Your task to perform on an android device: Search for usb-a on amazon.com, select the first entry, and add it to the cart. Image 0: 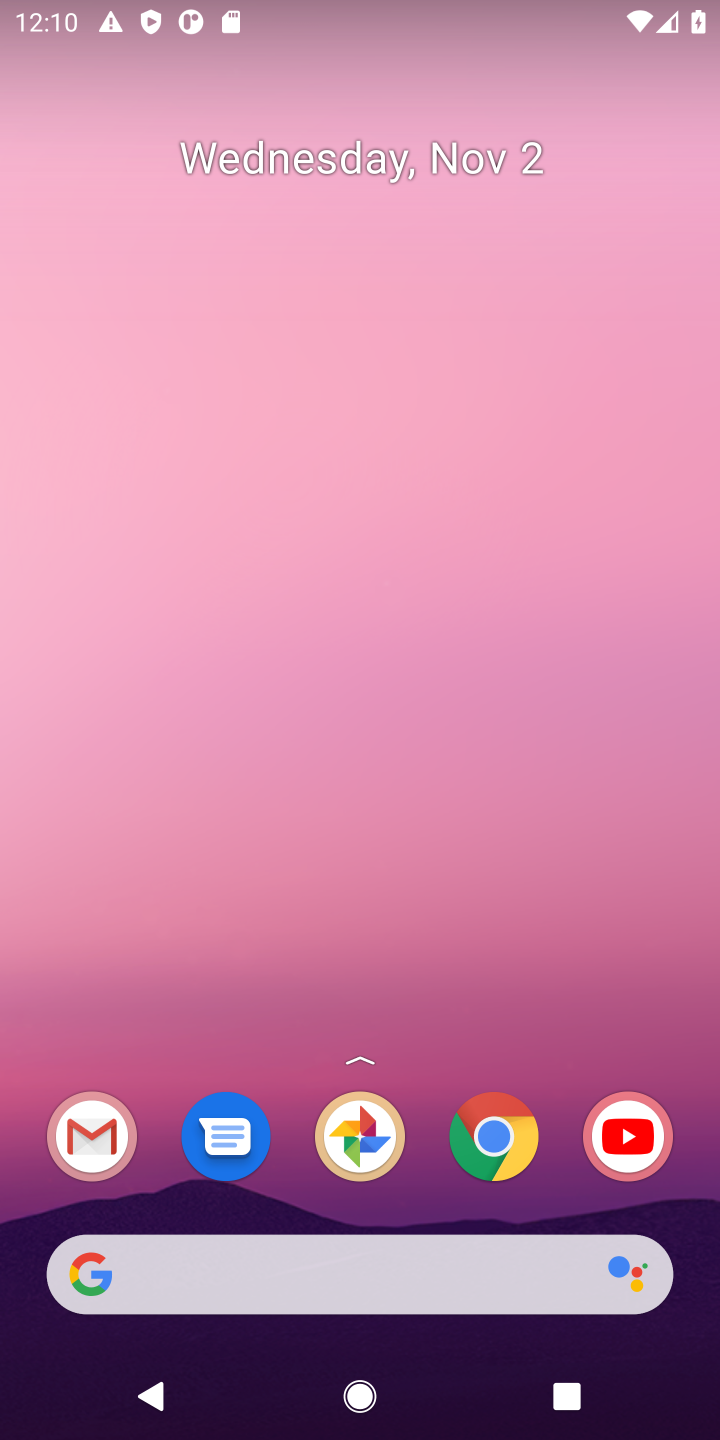
Step 0: click (499, 1134)
Your task to perform on an android device: Search for usb-a on amazon.com, select the first entry, and add it to the cart. Image 1: 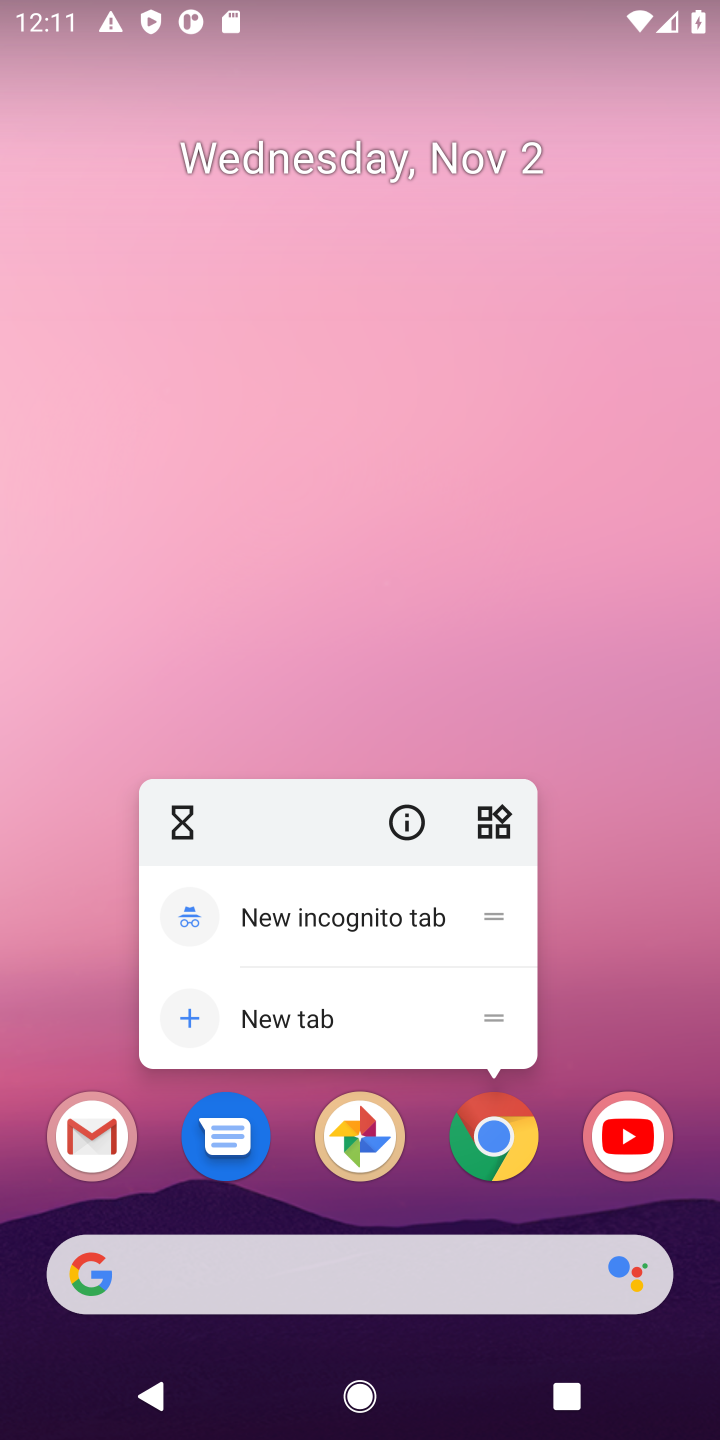
Step 1: click (493, 1134)
Your task to perform on an android device: Search for usb-a on amazon.com, select the first entry, and add it to the cart. Image 2: 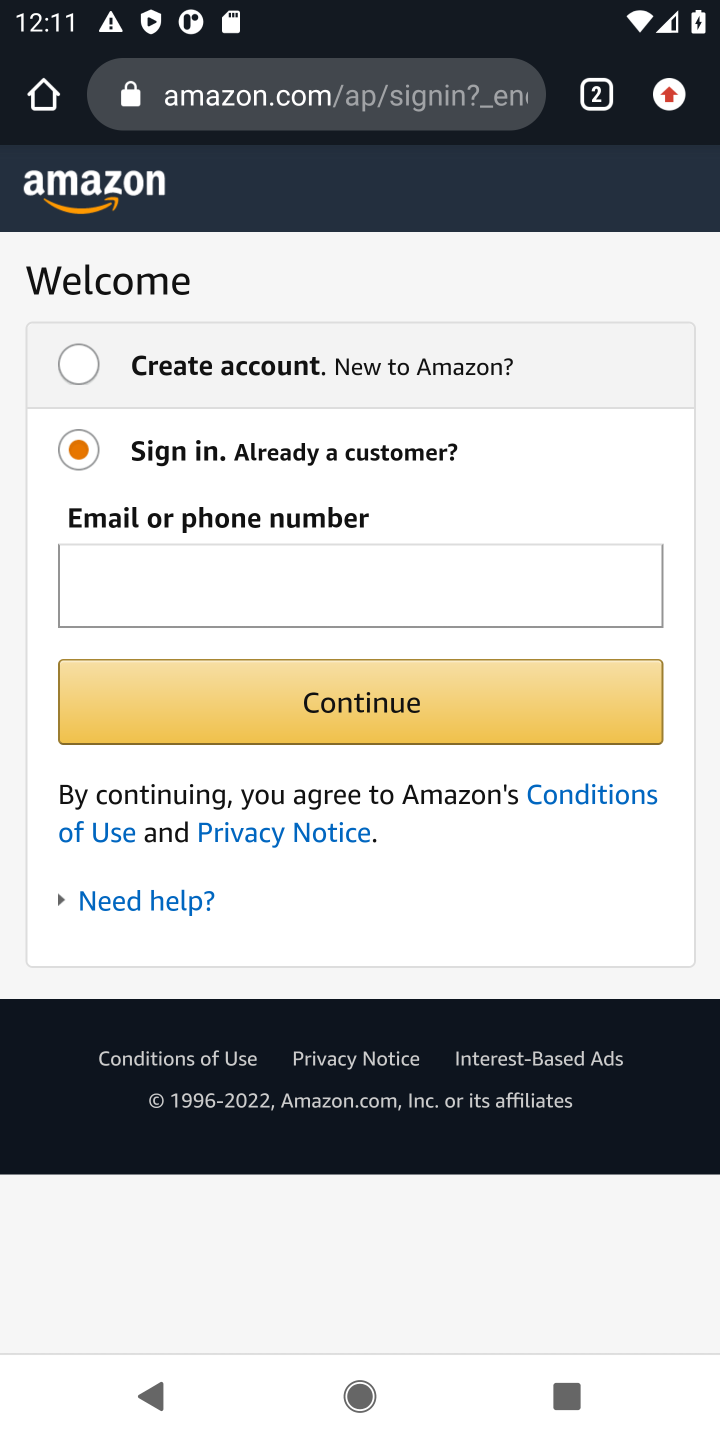
Step 2: click (86, 184)
Your task to perform on an android device: Search for usb-a on amazon.com, select the first entry, and add it to the cart. Image 3: 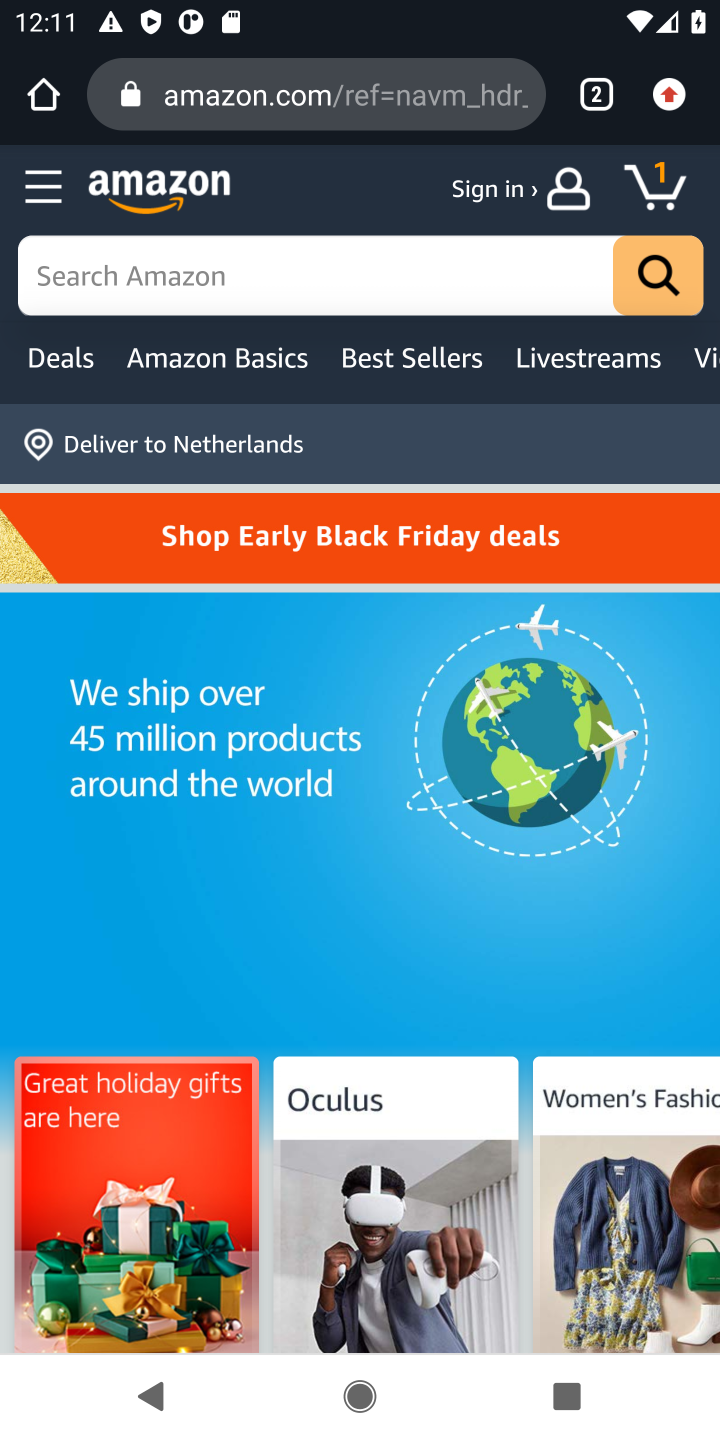
Step 3: click (274, 295)
Your task to perform on an android device: Search for usb-a on amazon.com, select the first entry, and add it to the cart. Image 4: 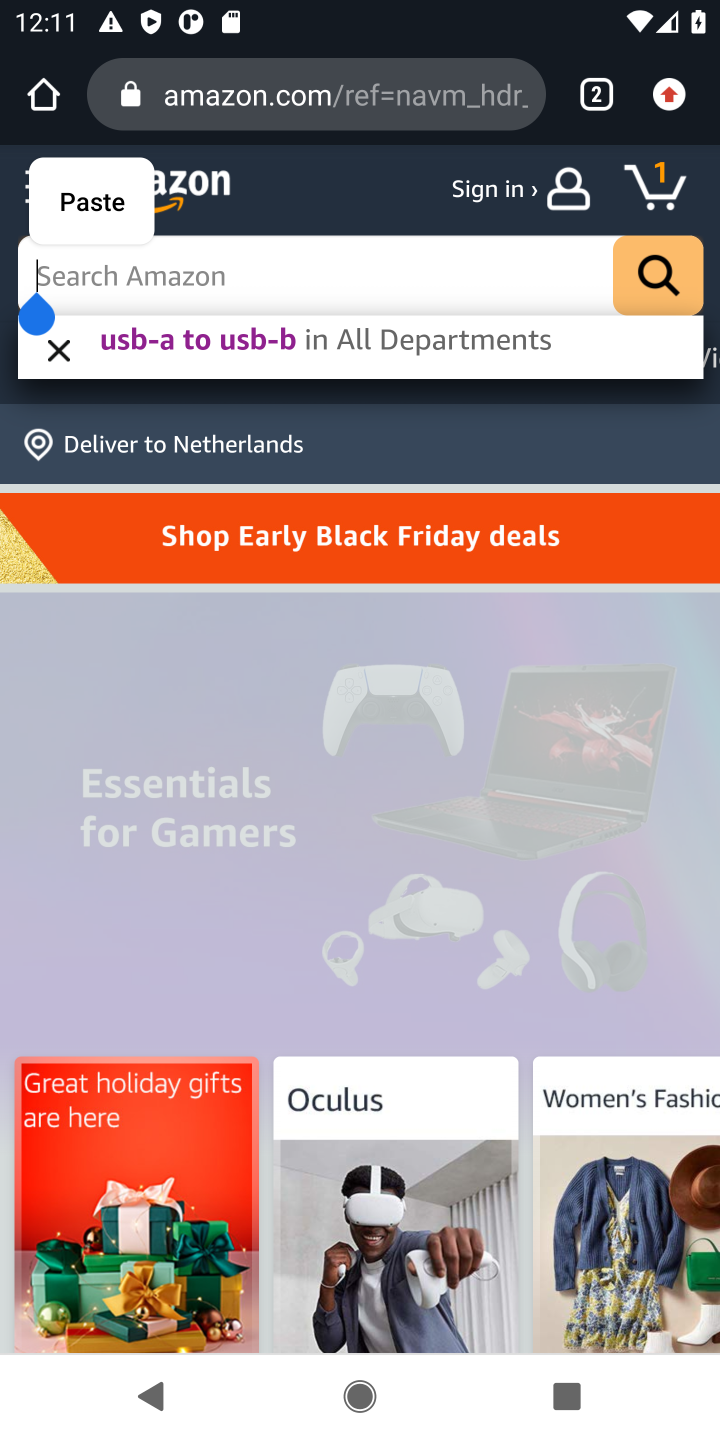
Step 4: type "usb-a"
Your task to perform on an android device: Search for usb-a on amazon.com, select the first entry, and add it to the cart. Image 5: 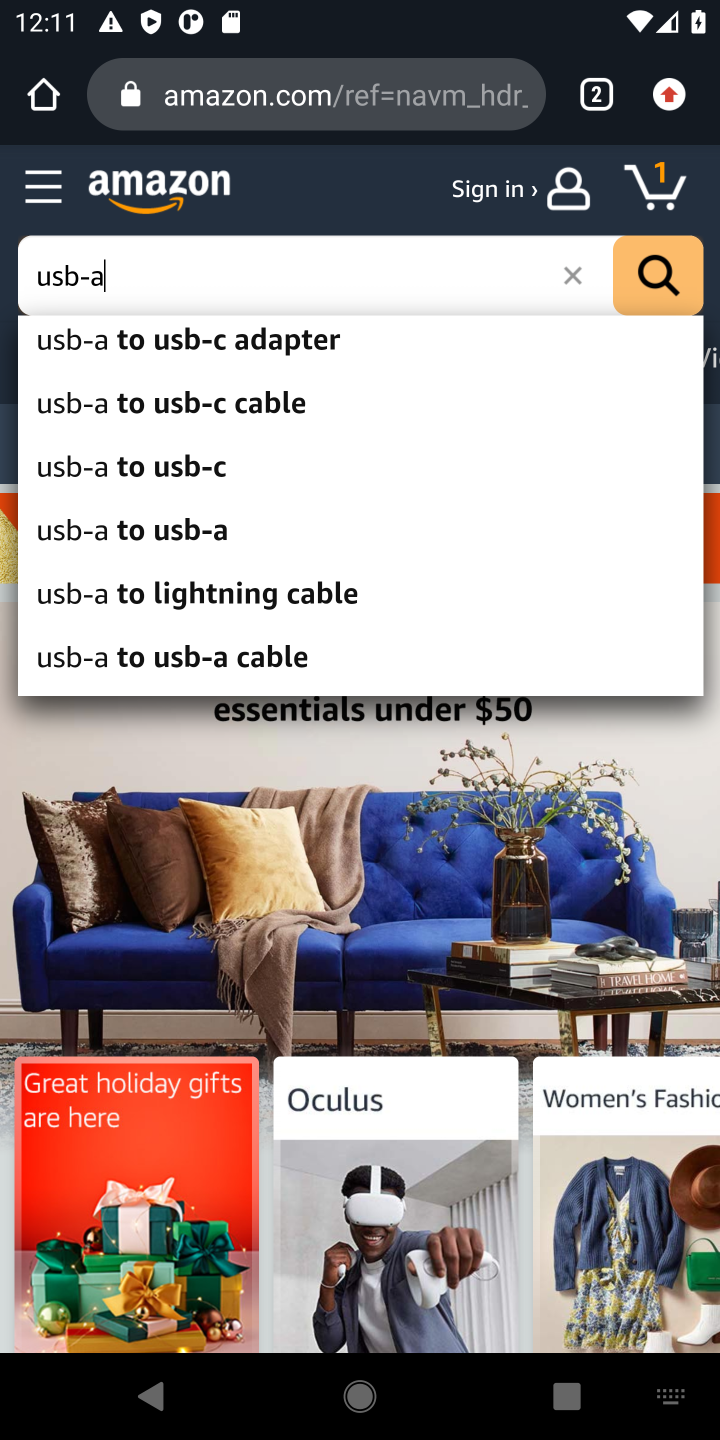
Step 5: click (629, 276)
Your task to perform on an android device: Search for usb-a on amazon.com, select the first entry, and add it to the cart. Image 6: 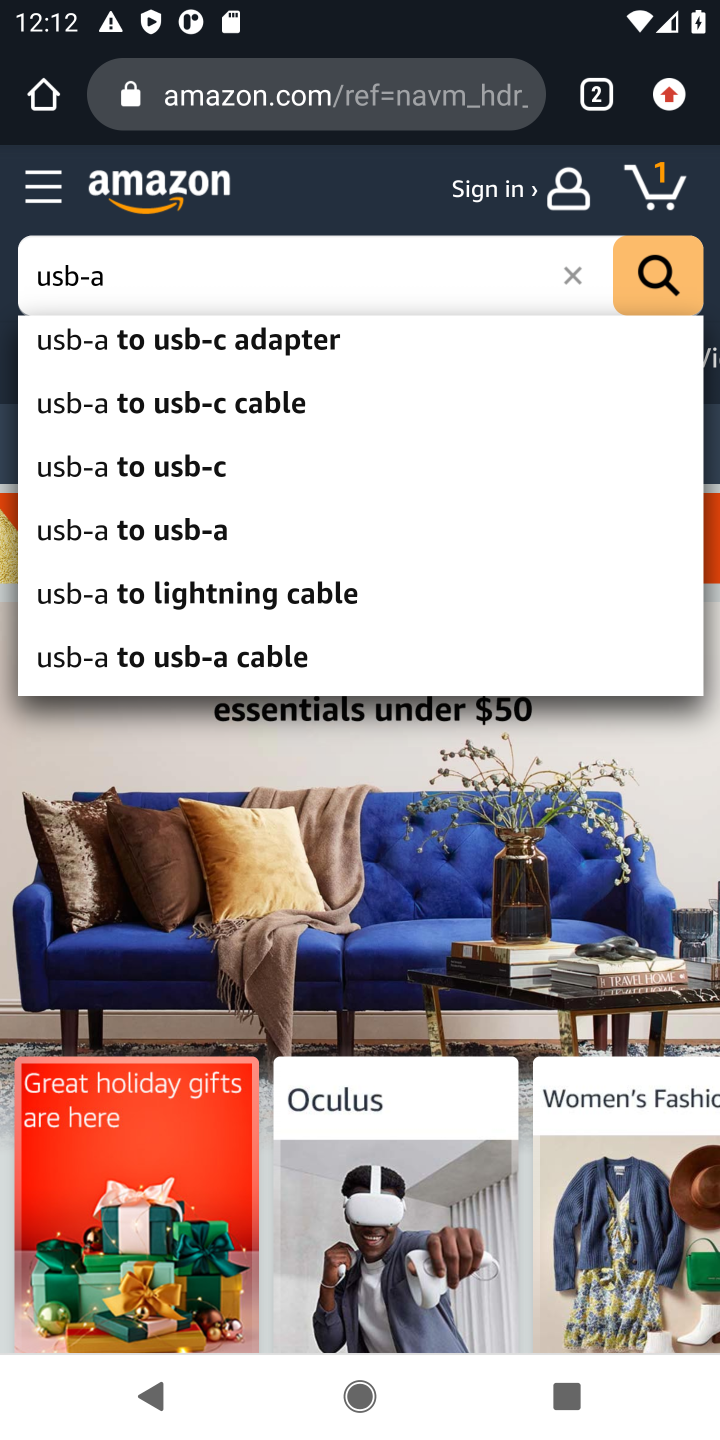
Step 6: click (681, 257)
Your task to perform on an android device: Search for usb-a on amazon.com, select the first entry, and add it to the cart. Image 7: 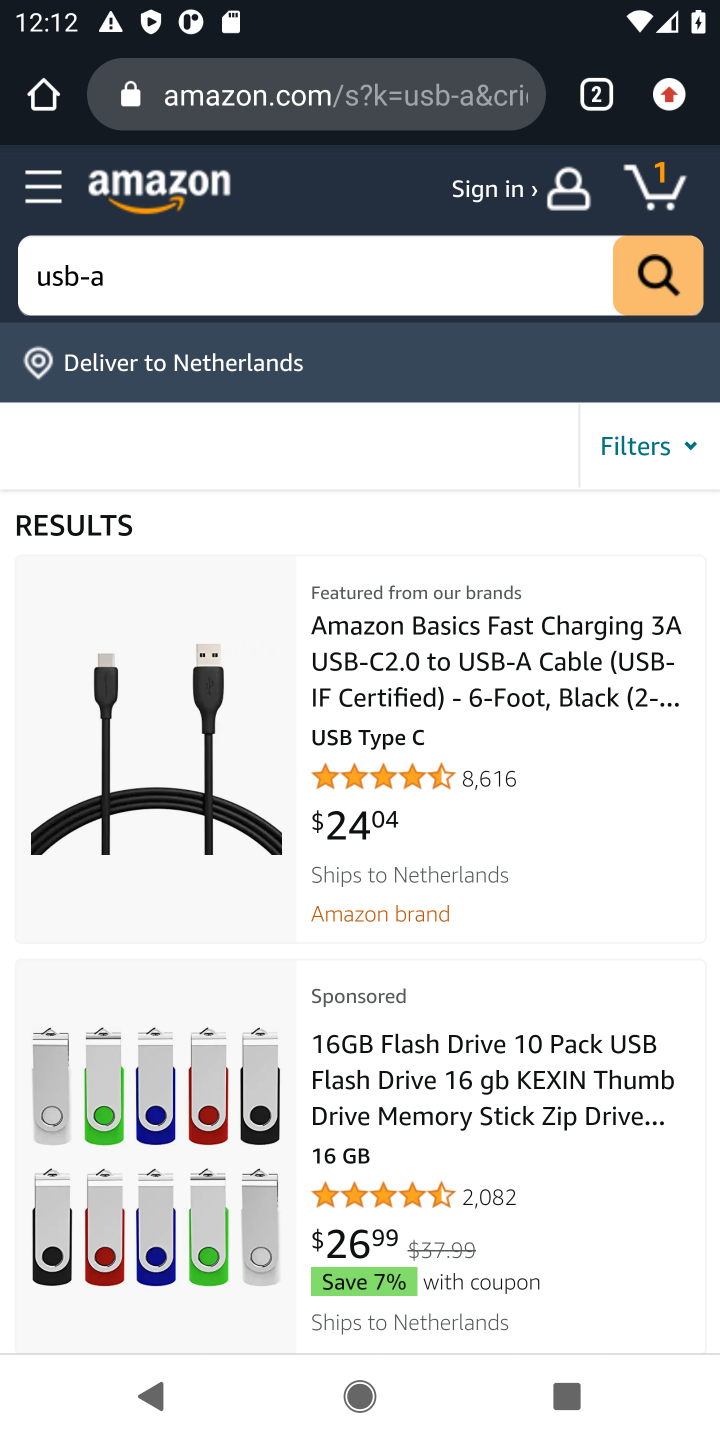
Step 7: click (531, 660)
Your task to perform on an android device: Search for usb-a on amazon.com, select the first entry, and add it to the cart. Image 8: 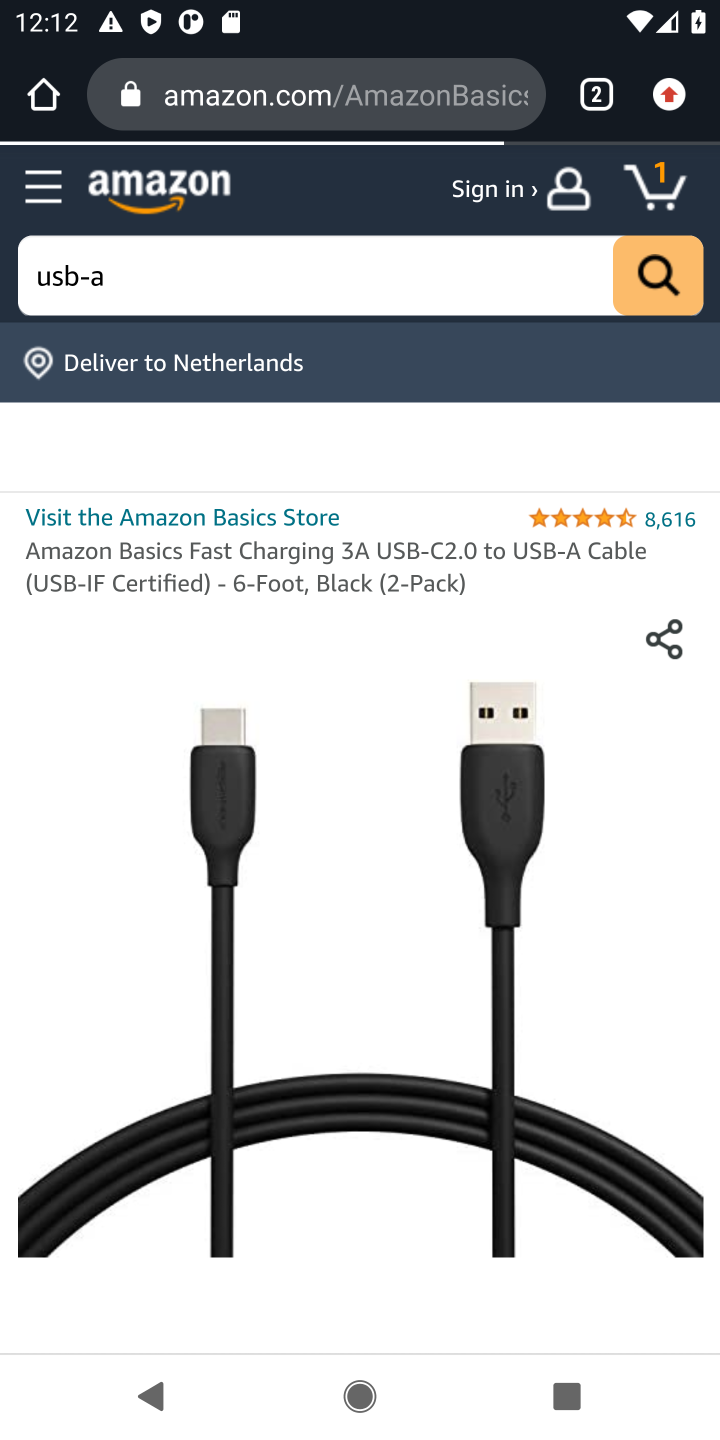
Step 8: drag from (539, 783) to (575, 543)
Your task to perform on an android device: Search for usb-a on amazon.com, select the first entry, and add it to the cart. Image 9: 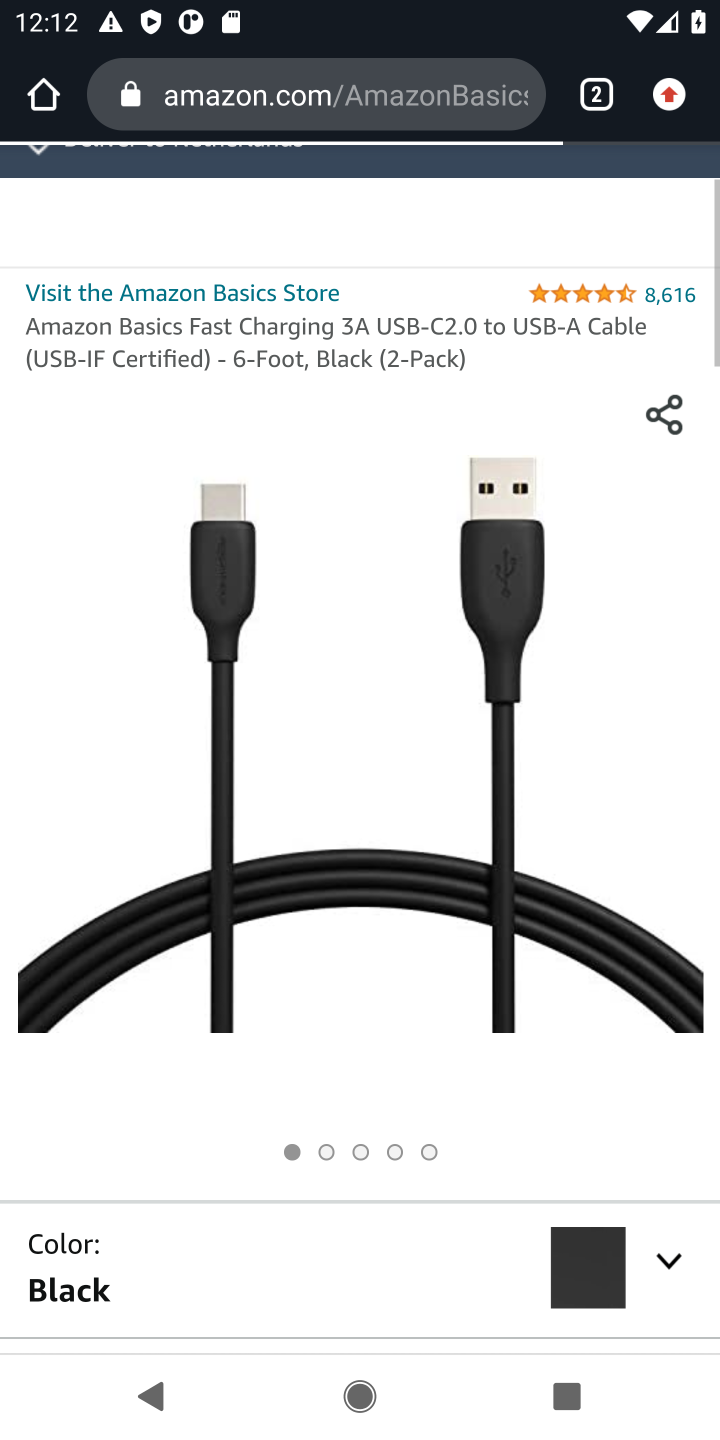
Step 9: drag from (513, 724) to (551, 553)
Your task to perform on an android device: Search for usb-a on amazon.com, select the first entry, and add it to the cart. Image 10: 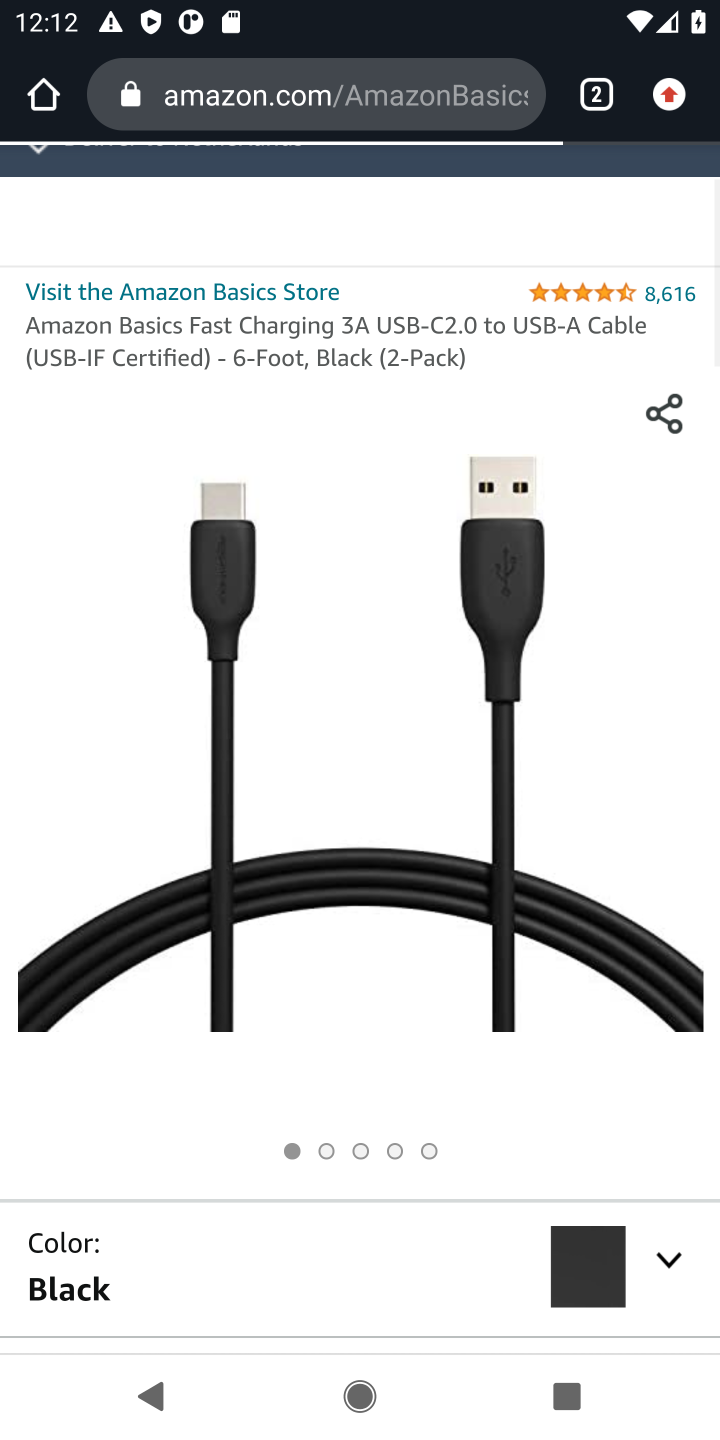
Step 10: drag from (504, 938) to (594, 486)
Your task to perform on an android device: Search for usb-a on amazon.com, select the first entry, and add it to the cart. Image 11: 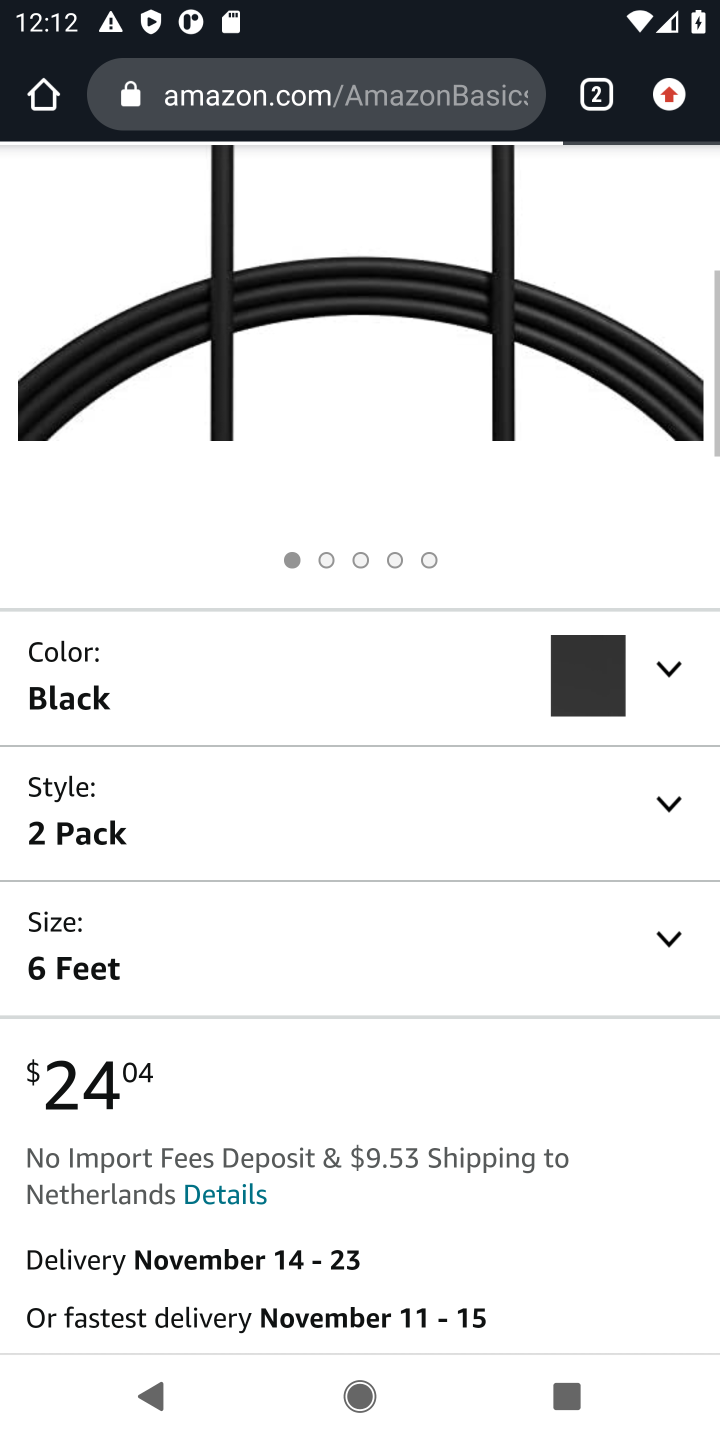
Step 11: drag from (491, 731) to (532, 533)
Your task to perform on an android device: Search for usb-a on amazon.com, select the first entry, and add it to the cart. Image 12: 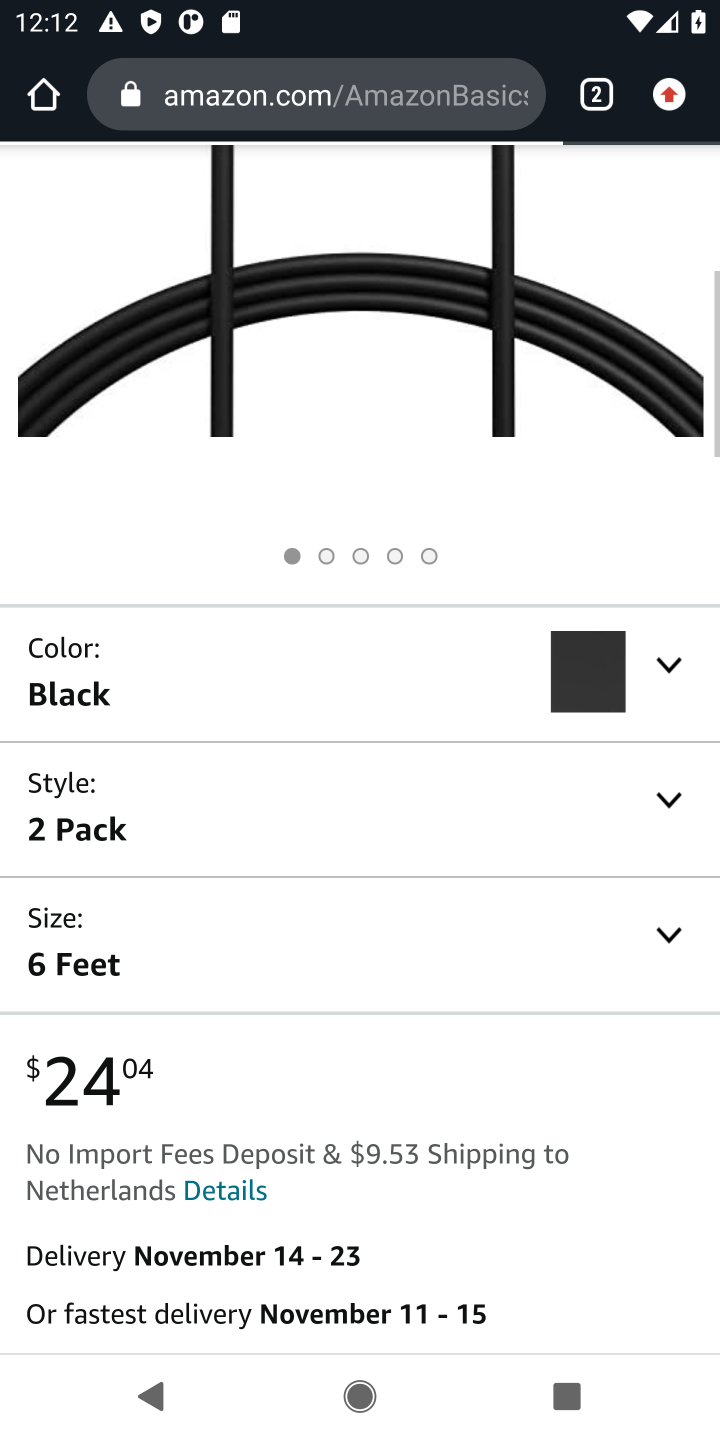
Step 12: drag from (441, 985) to (533, 477)
Your task to perform on an android device: Search for usb-a on amazon.com, select the first entry, and add it to the cart. Image 13: 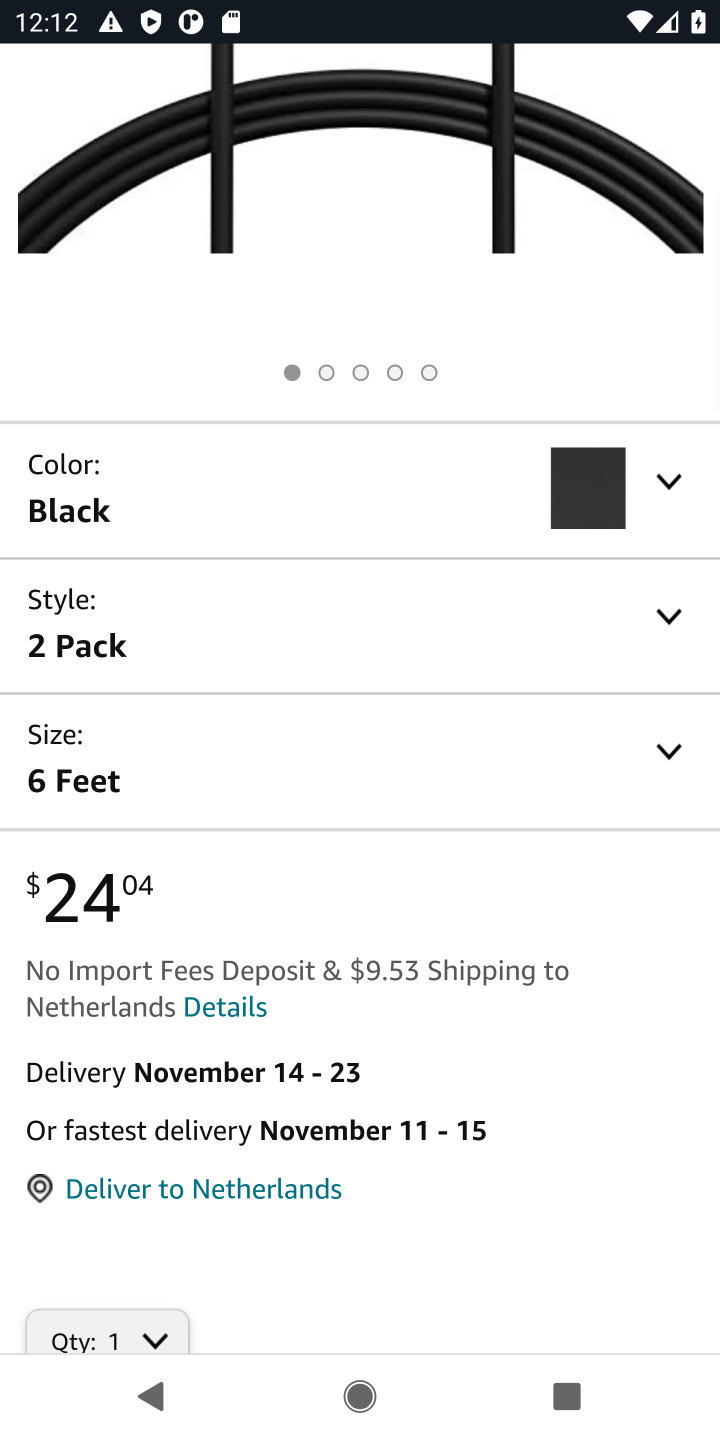
Step 13: drag from (413, 916) to (421, 523)
Your task to perform on an android device: Search for usb-a on amazon.com, select the first entry, and add it to the cart. Image 14: 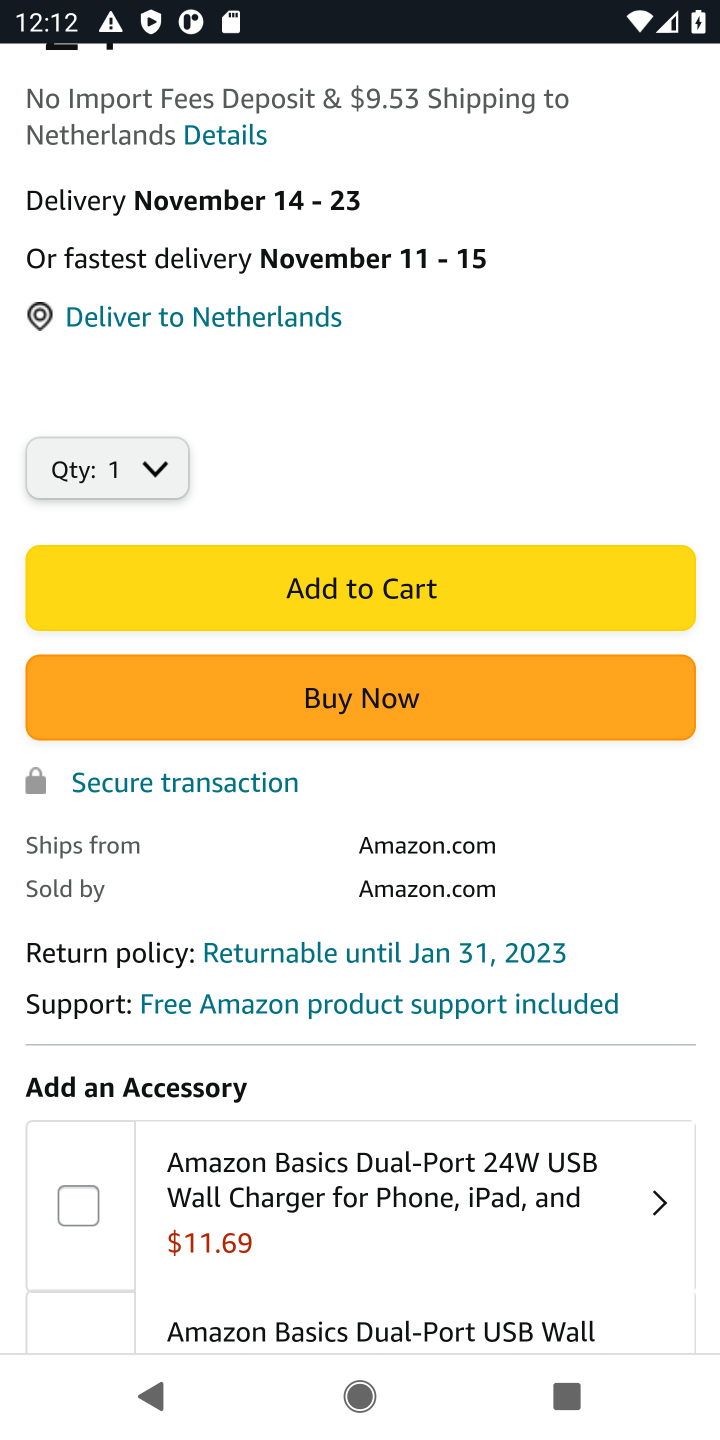
Step 14: click (405, 961)
Your task to perform on an android device: Search for usb-a on amazon.com, select the first entry, and add it to the cart. Image 15: 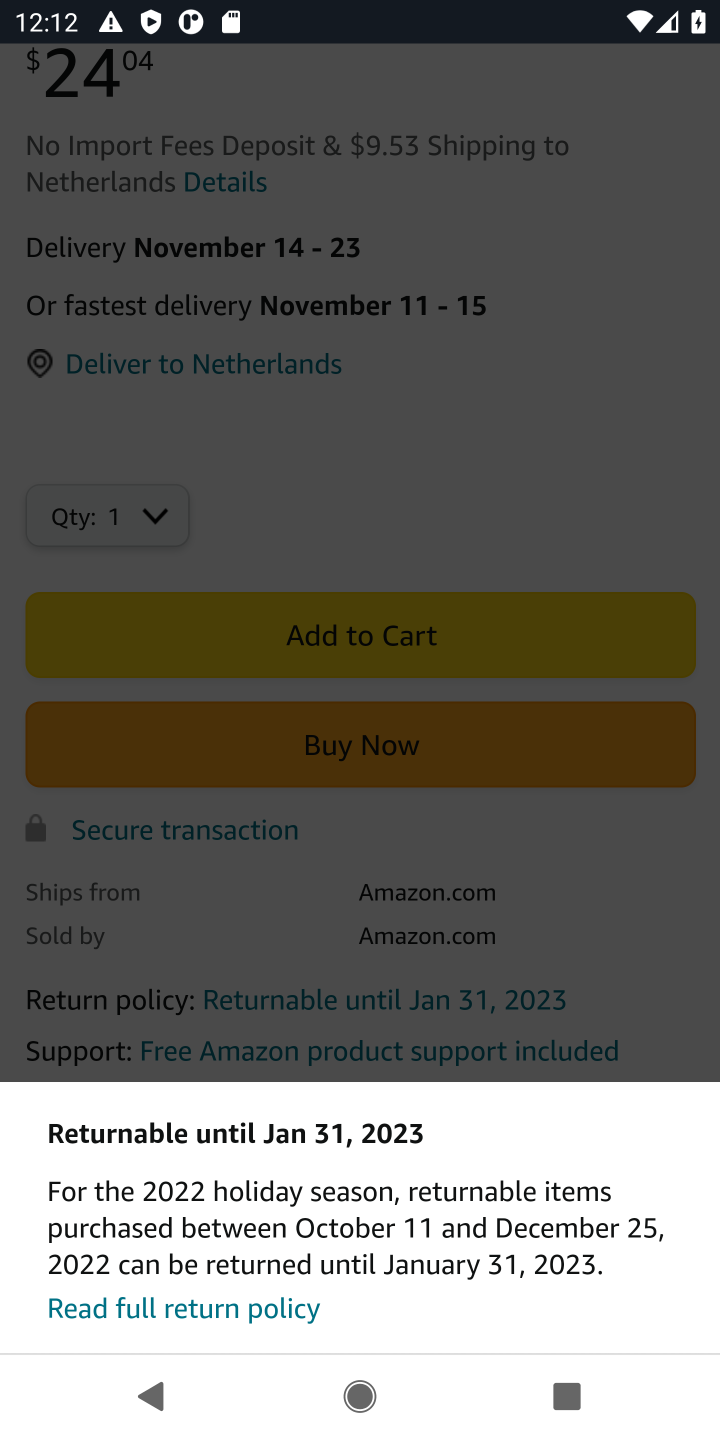
Step 15: click (267, 961)
Your task to perform on an android device: Search for usb-a on amazon.com, select the first entry, and add it to the cart. Image 16: 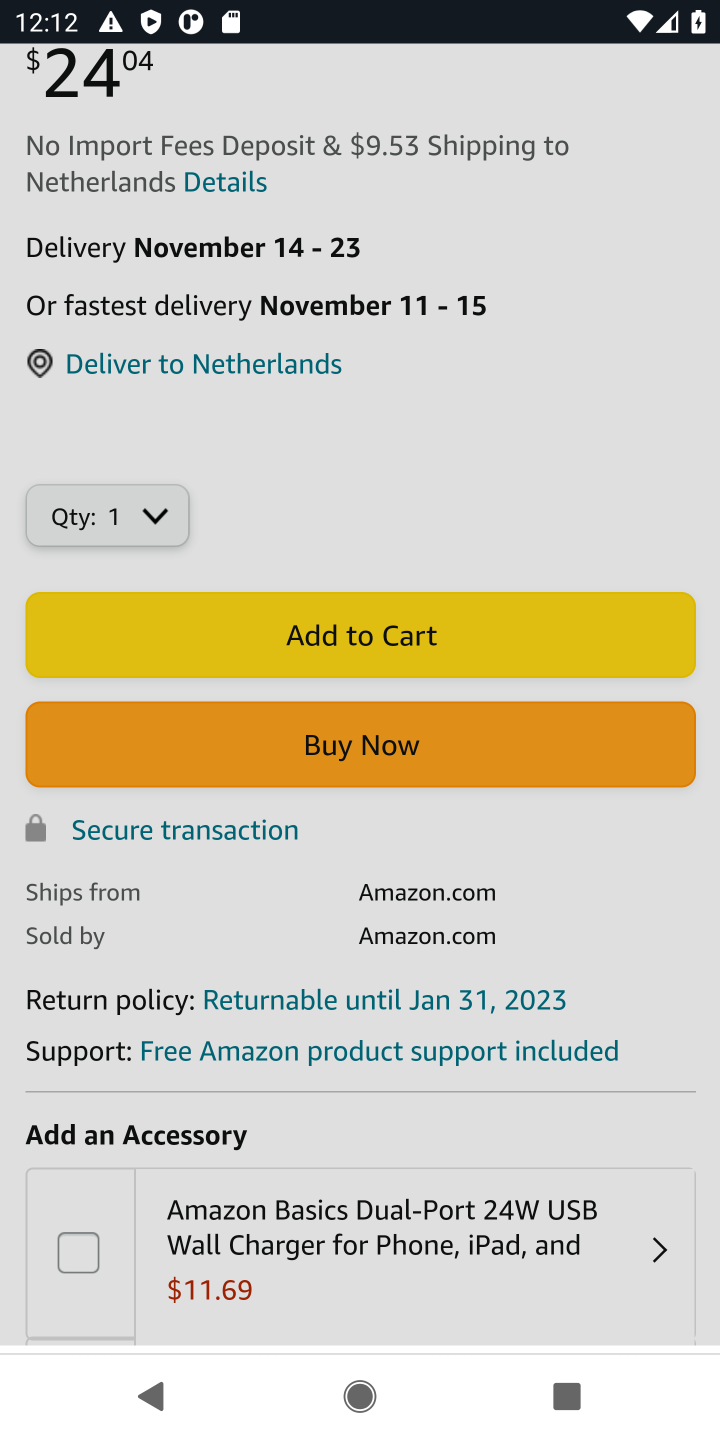
Step 16: click (408, 1104)
Your task to perform on an android device: Search for usb-a on amazon.com, select the first entry, and add it to the cart. Image 17: 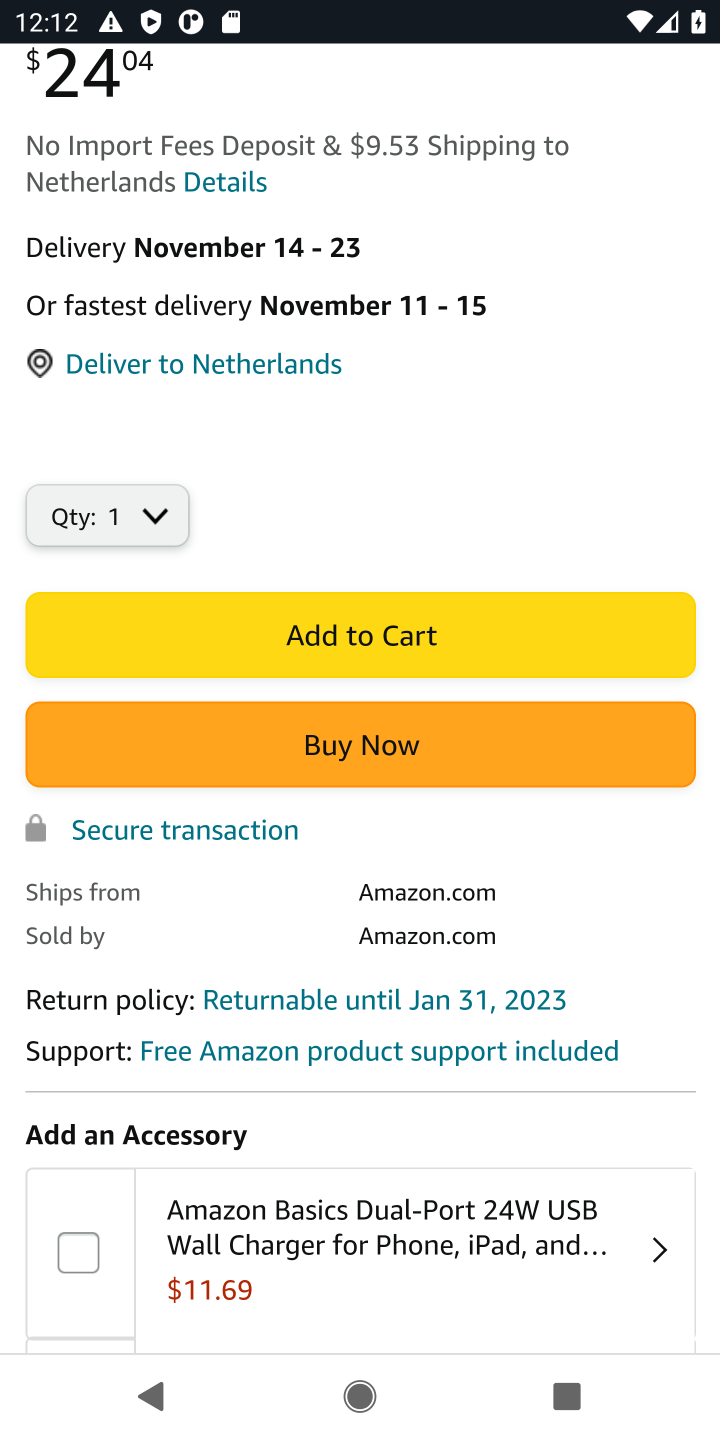
Step 17: click (412, 653)
Your task to perform on an android device: Search for usb-a on amazon.com, select the first entry, and add it to the cart. Image 18: 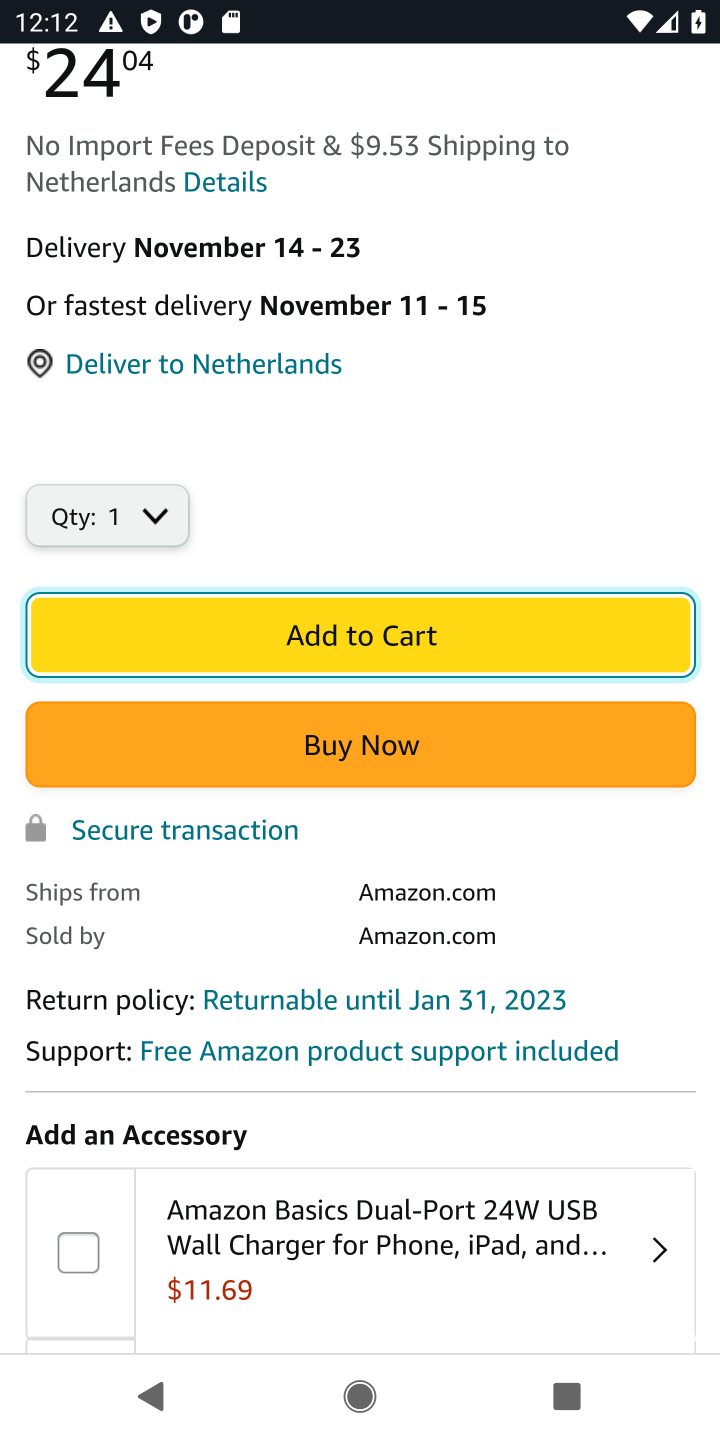
Step 18: click (385, 656)
Your task to perform on an android device: Search for usb-a on amazon.com, select the first entry, and add it to the cart. Image 19: 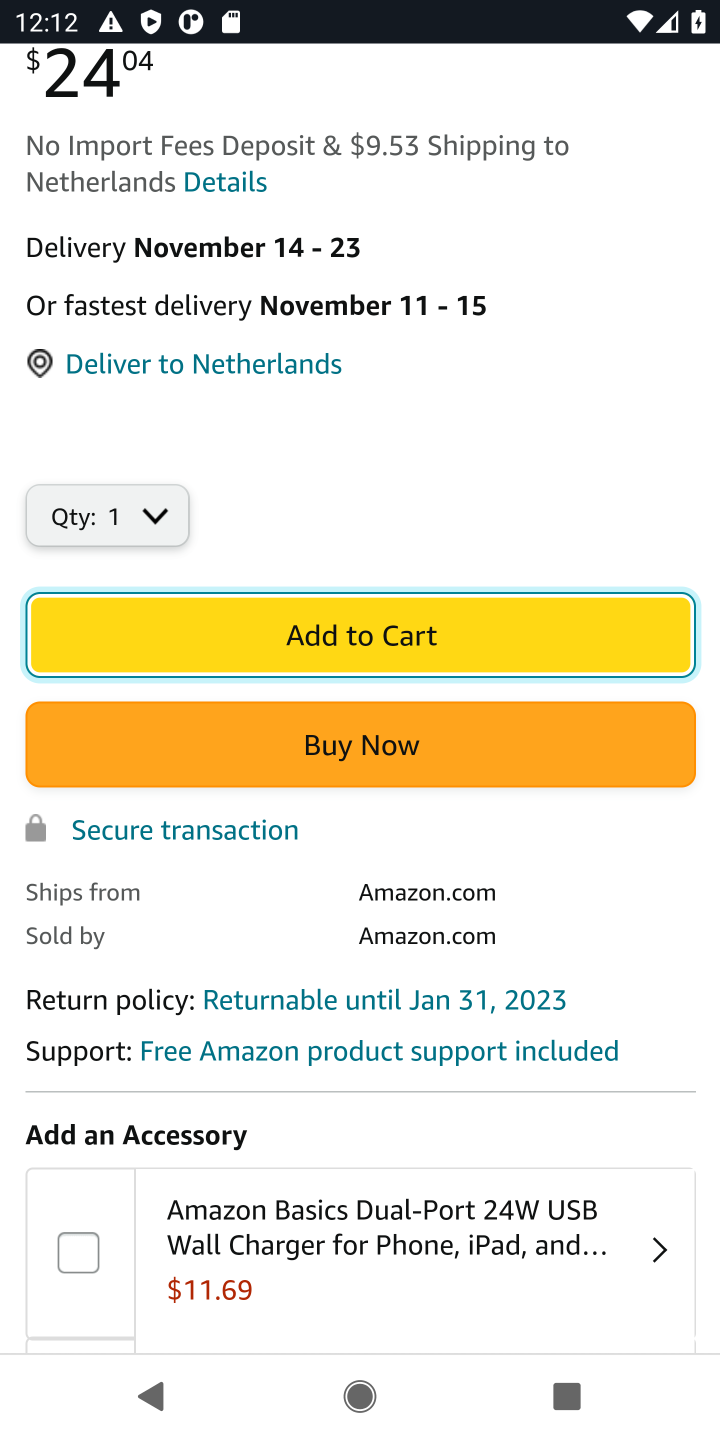
Step 19: click (322, 631)
Your task to perform on an android device: Search for usb-a on amazon.com, select the first entry, and add it to the cart. Image 20: 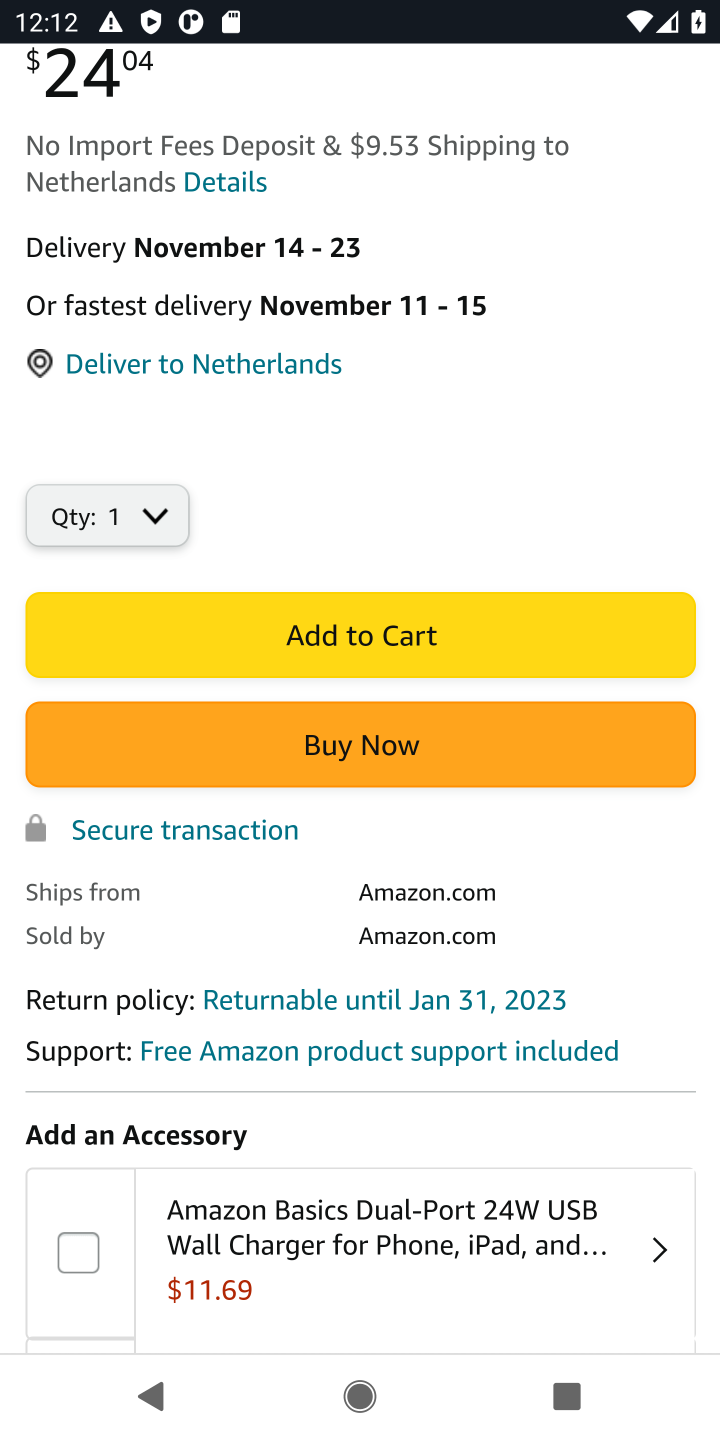
Step 20: task complete